Your task to perform on an android device: Open Amazon Image 0: 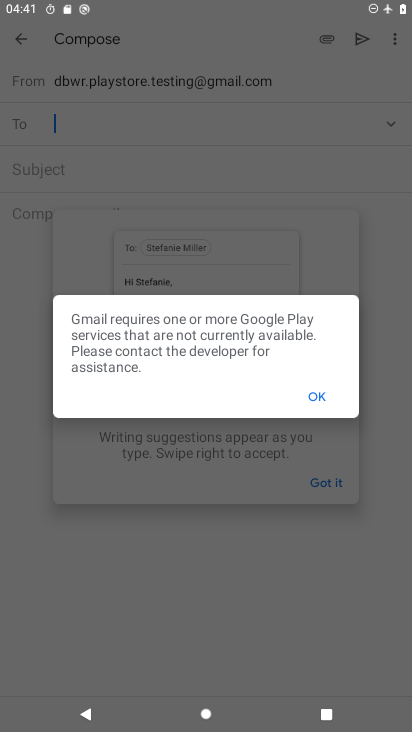
Step 0: press home button
Your task to perform on an android device: Open Amazon Image 1: 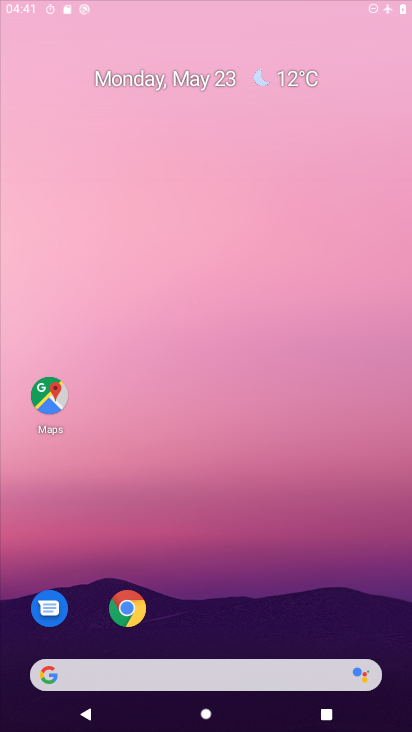
Step 1: drag from (313, 532) to (194, 19)
Your task to perform on an android device: Open Amazon Image 2: 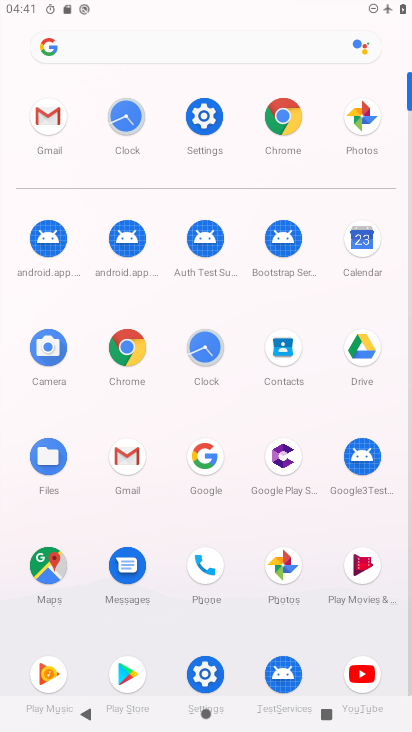
Step 2: click (209, 118)
Your task to perform on an android device: Open Amazon Image 3: 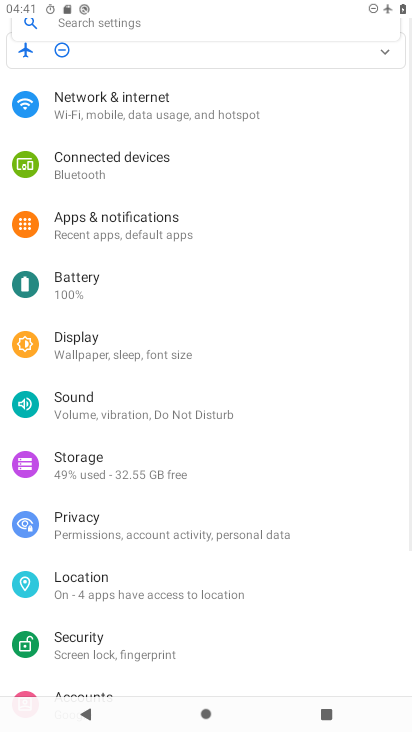
Step 3: click (210, 131)
Your task to perform on an android device: Open Amazon Image 4: 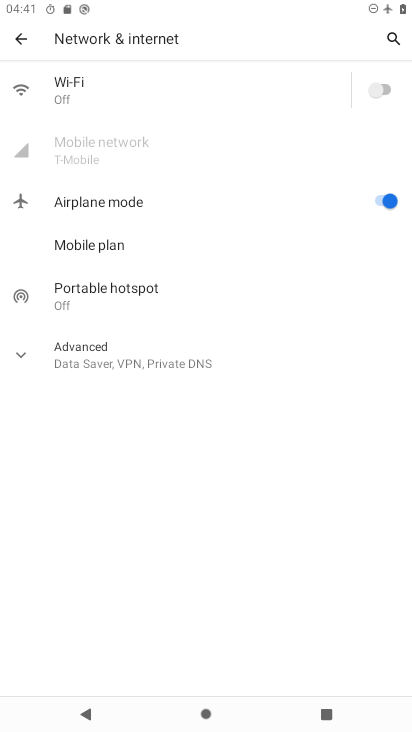
Step 4: click (381, 86)
Your task to perform on an android device: Open Amazon Image 5: 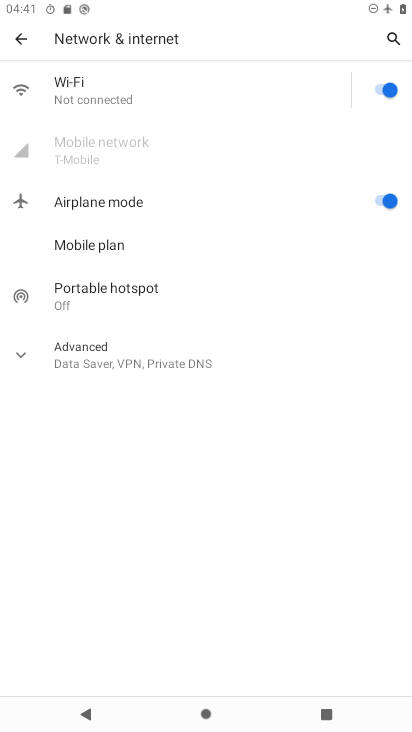
Step 5: press home button
Your task to perform on an android device: Open Amazon Image 6: 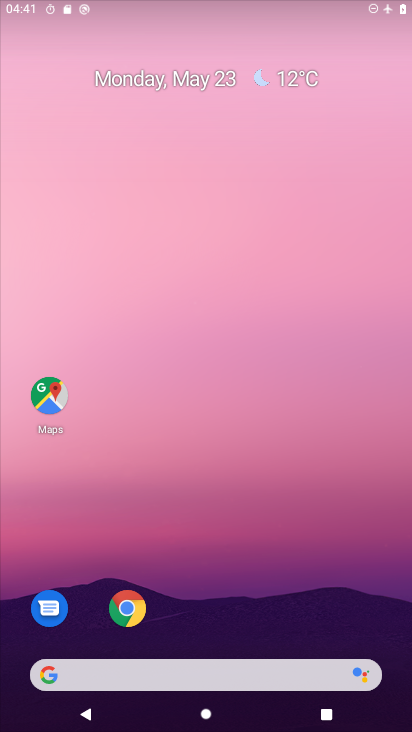
Step 6: click (118, 620)
Your task to perform on an android device: Open Amazon Image 7: 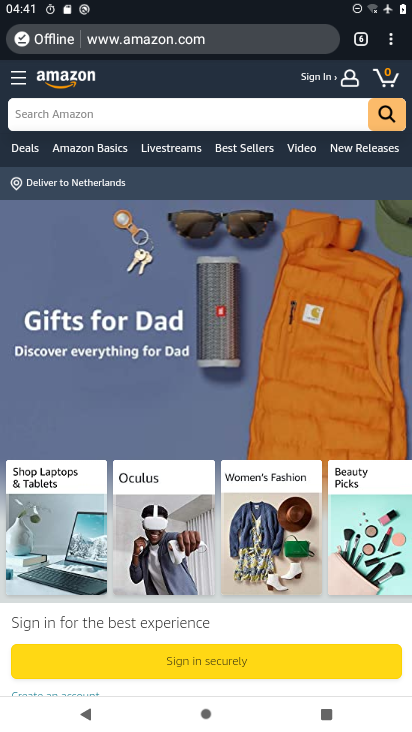
Step 7: task complete